Your task to perform on an android device: refresh tabs in the chrome app Image 0: 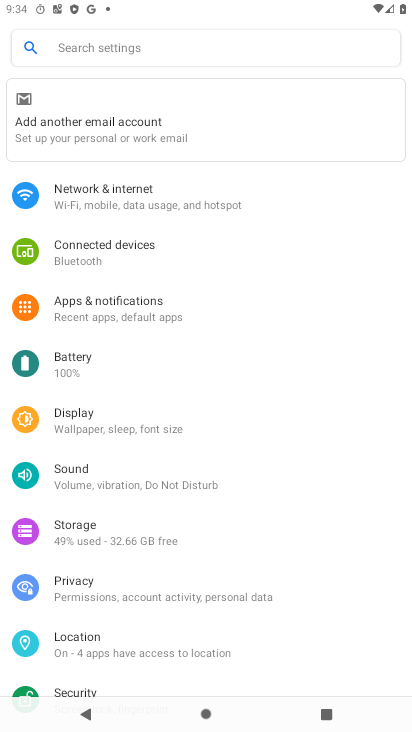
Step 0: task complete